Your task to perform on an android device: delete the emails in spam in the gmail app Image 0: 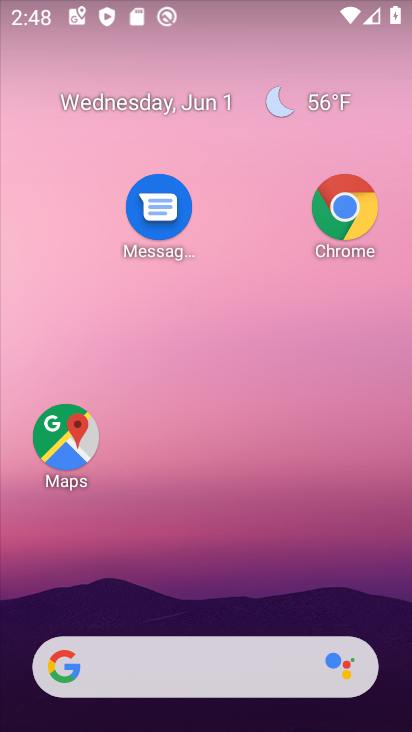
Step 0: drag from (248, 489) to (288, 153)
Your task to perform on an android device: delete the emails in spam in the gmail app Image 1: 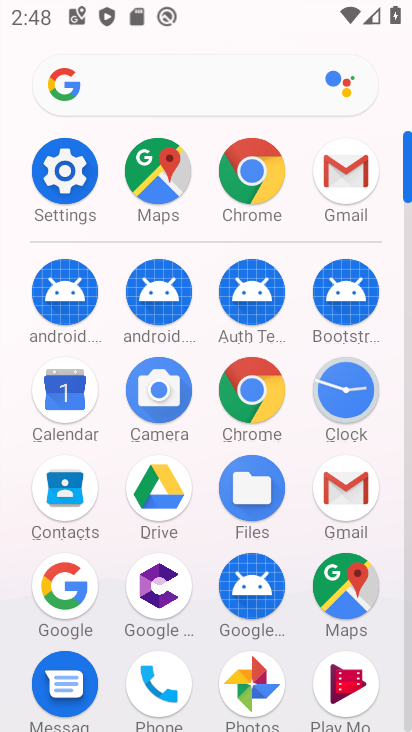
Step 1: click (344, 483)
Your task to perform on an android device: delete the emails in spam in the gmail app Image 2: 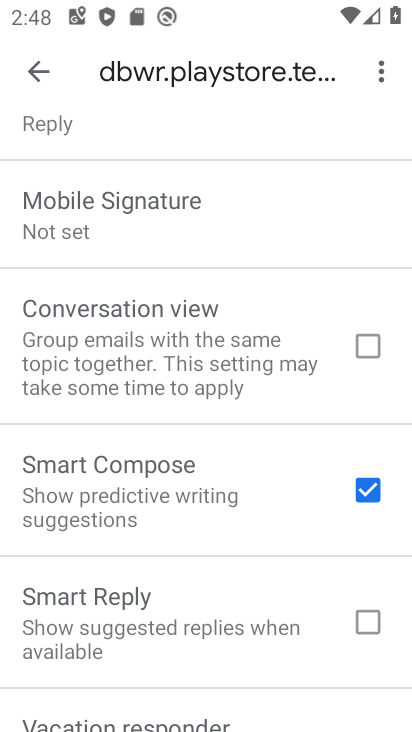
Step 2: drag from (194, 578) to (253, 233)
Your task to perform on an android device: delete the emails in spam in the gmail app Image 3: 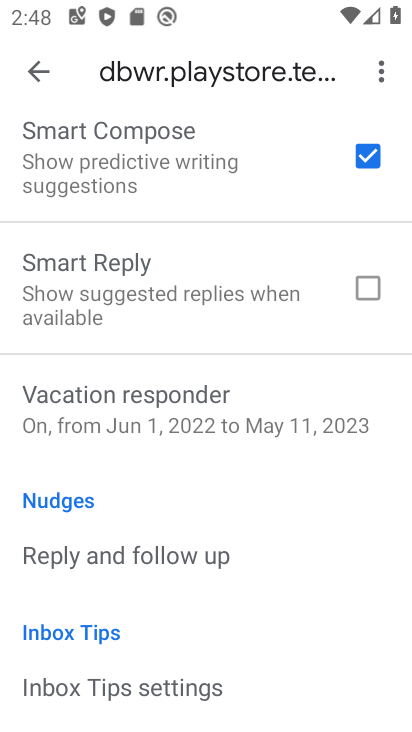
Step 3: click (41, 73)
Your task to perform on an android device: delete the emails in spam in the gmail app Image 4: 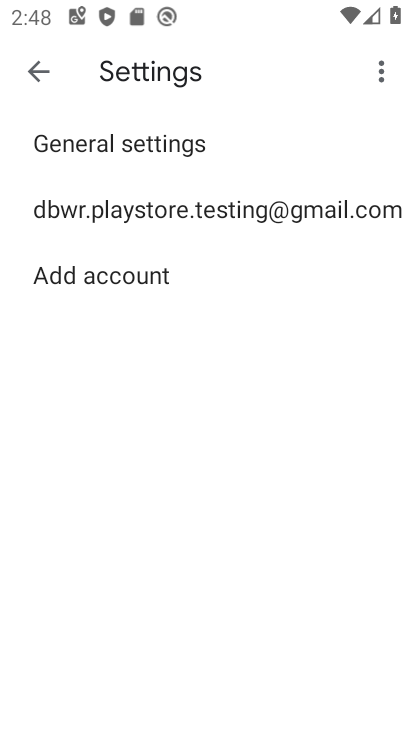
Step 4: click (41, 73)
Your task to perform on an android device: delete the emails in spam in the gmail app Image 5: 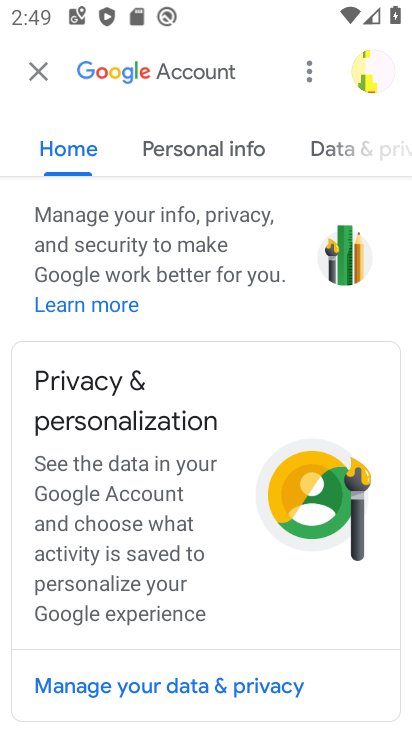
Step 5: drag from (182, 455) to (230, 251)
Your task to perform on an android device: delete the emails in spam in the gmail app Image 6: 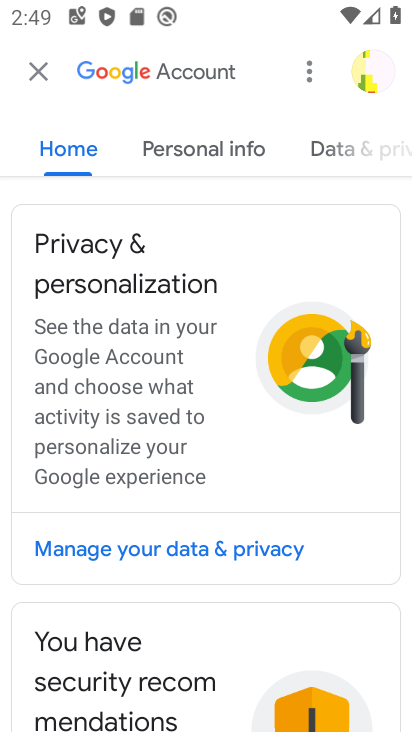
Step 6: click (33, 75)
Your task to perform on an android device: delete the emails in spam in the gmail app Image 7: 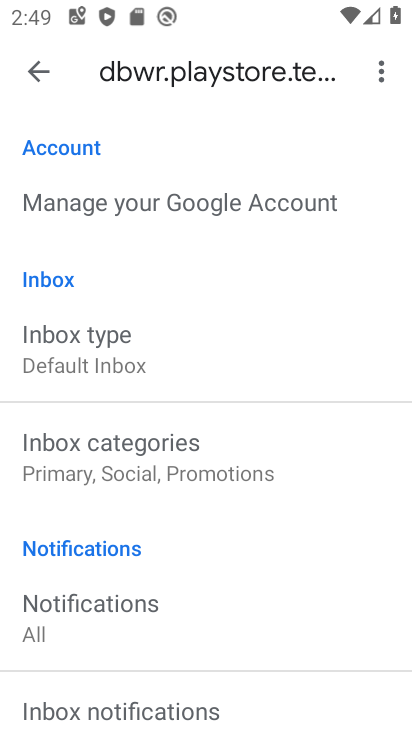
Step 7: click (39, 67)
Your task to perform on an android device: delete the emails in spam in the gmail app Image 8: 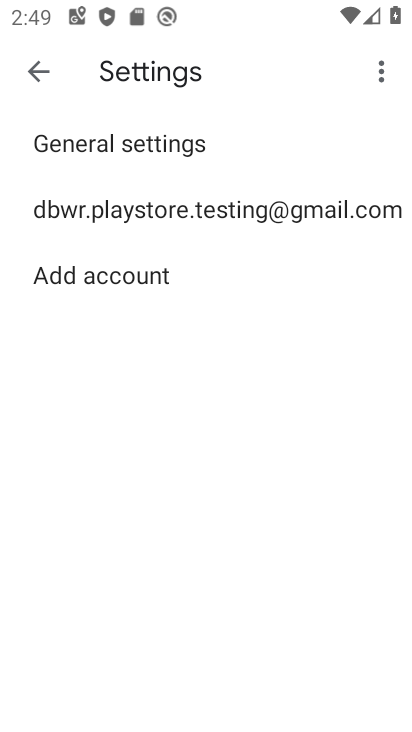
Step 8: click (39, 67)
Your task to perform on an android device: delete the emails in spam in the gmail app Image 9: 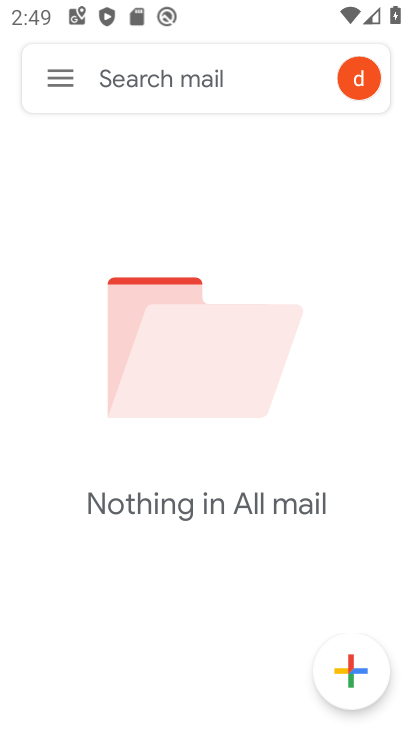
Step 9: click (38, 66)
Your task to perform on an android device: delete the emails in spam in the gmail app Image 10: 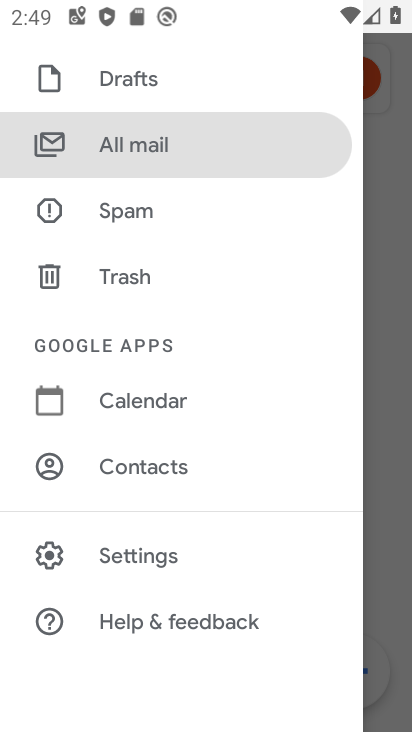
Step 10: click (122, 197)
Your task to perform on an android device: delete the emails in spam in the gmail app Image 11: 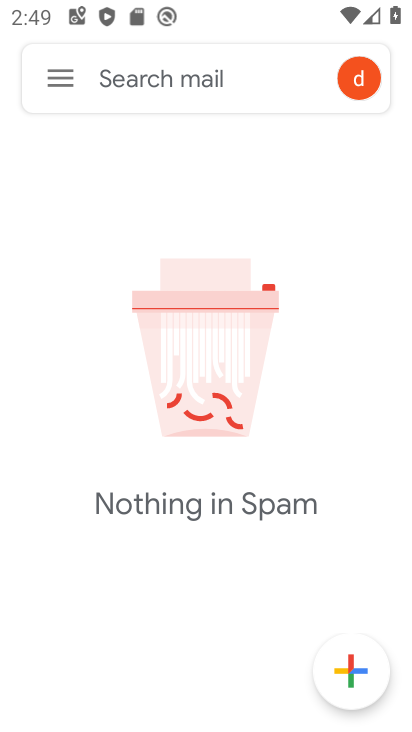
Step 11: task complete